Your task to perform on an android device: turn off translation in the chrome app Image 0: 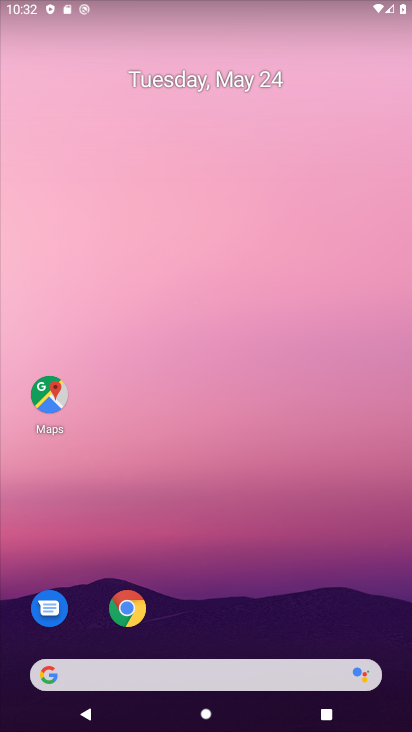
Step 0: click (127, 608)
Your task to perform on an android device: turn off translation in the chrome app Image 1: 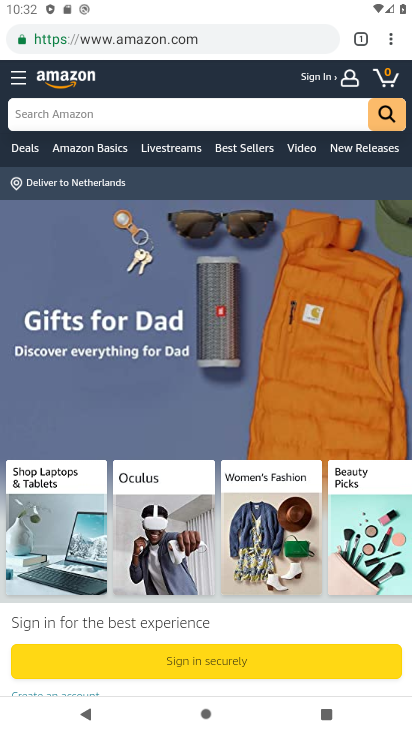
Step 1: click (390, 44)
Your task to perform on an android device: turn off translation in the chrome app Image 2: 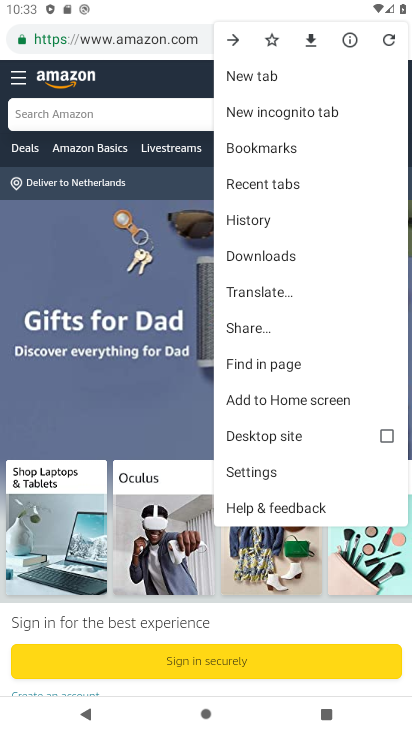
Step 2: click (263, 474)
Your task to perform on an android device: turn off translation in the chrome app Image 3: 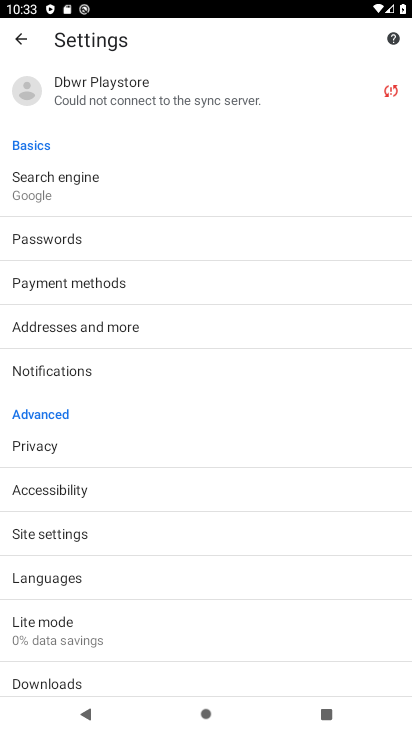
Step 3: click (66, 574)
Your task to perform on an android device: turn off translation in the chrome app Image 4: 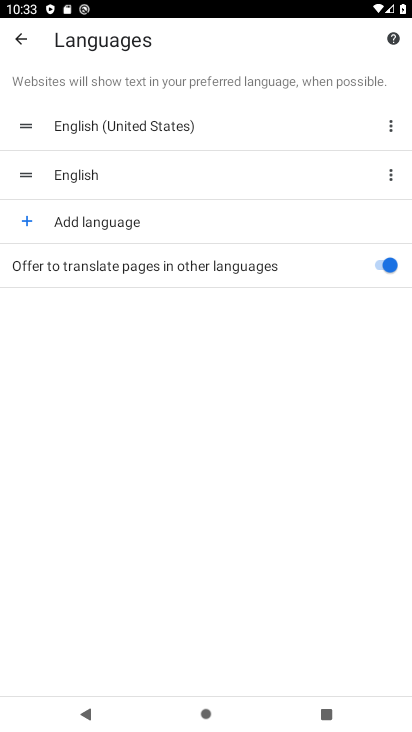
Step 4: click (374, 257)
Your task to perform on an android device: turn off translation in the chrome app Image 5: 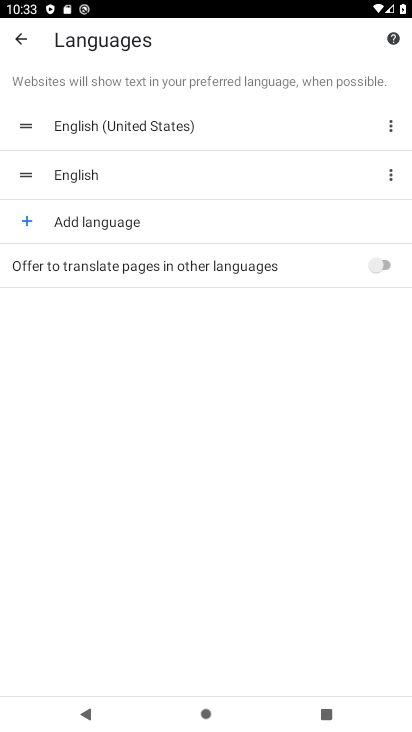
Step 5: task complete